Your task to perform on an android device: check storage Image 0: 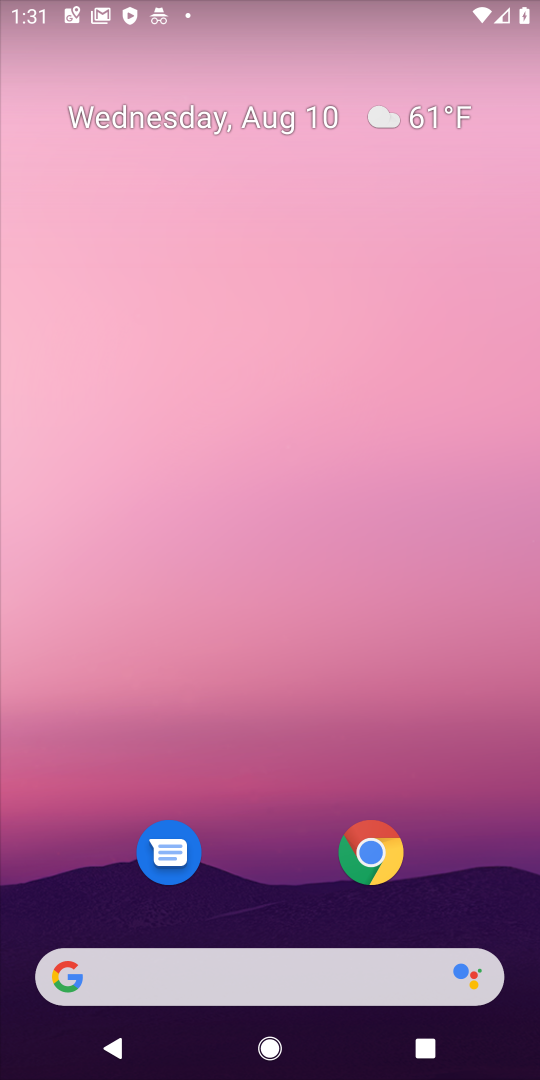
Step 0: drag from (291, 655) to (231, 11)
Your task to perform on an android device: check storage Image 1: 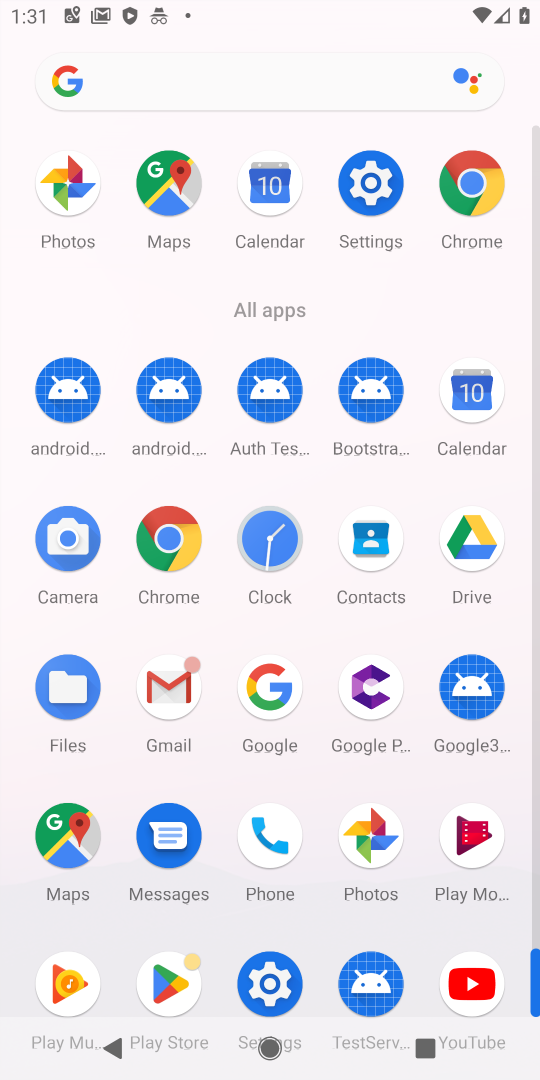
Step 1: click (360, 178)
Your task to perform on an android device: check storage Image 2: 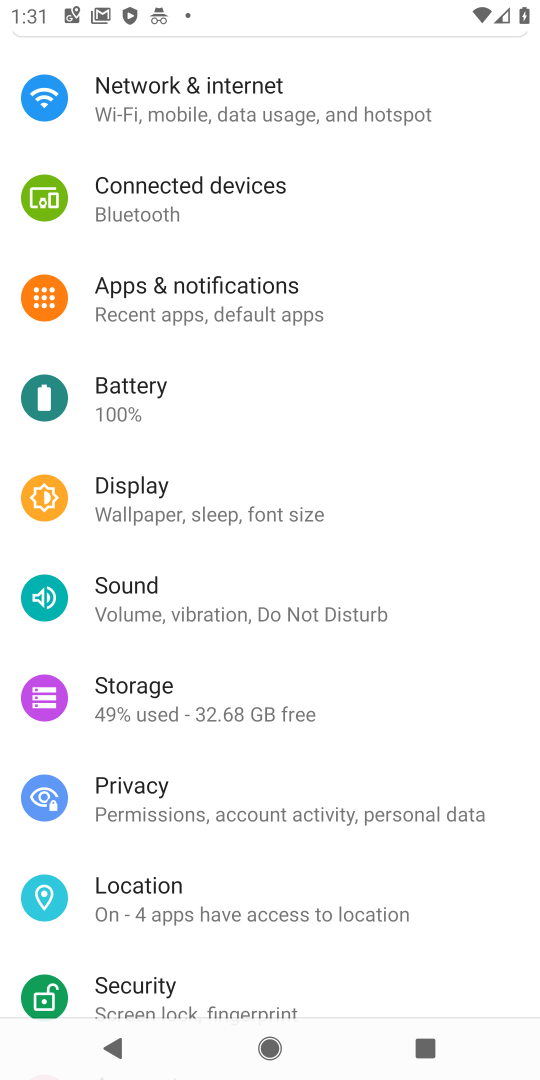
Step 2: click (178, 693)
Your task to perform on an android device: check storage Image 3: 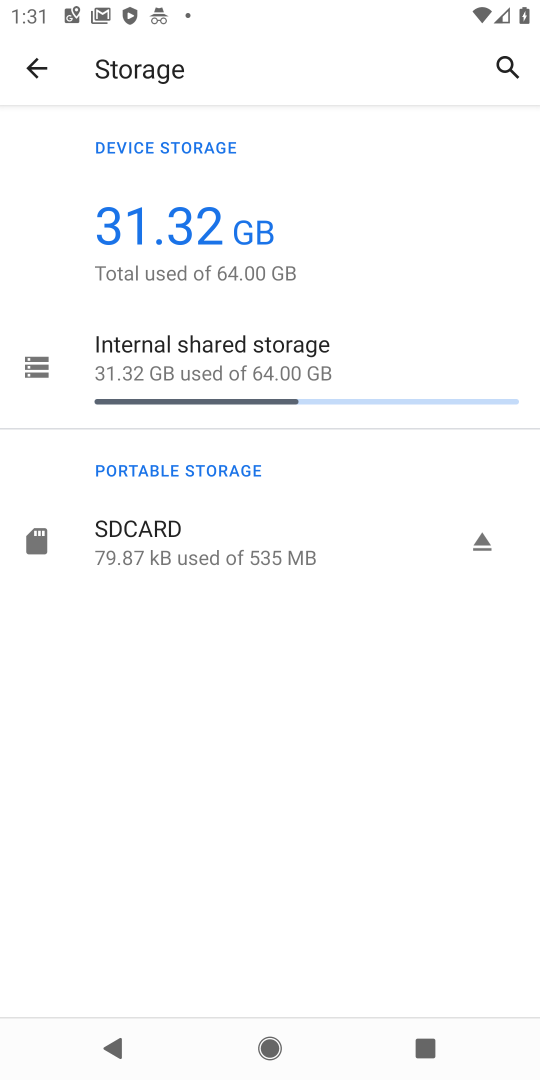
Step 3: task complete